Your task to perform on an android device: turn off priority inbox in the gmail app Image 0: 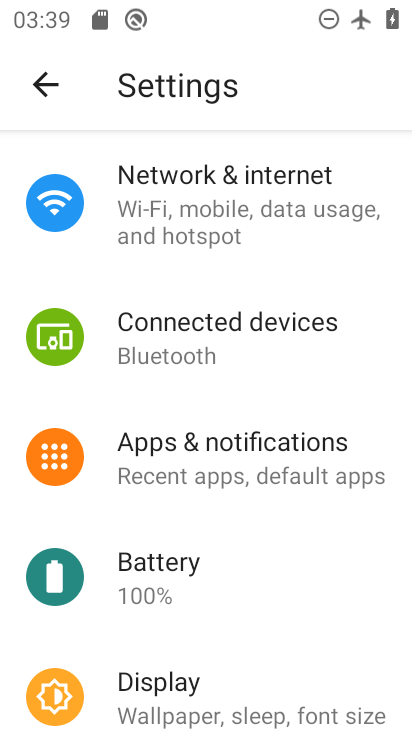
Step 0: press home button
Your task to perform on an android device: turn off priority inbox in the gmail app Image 1: 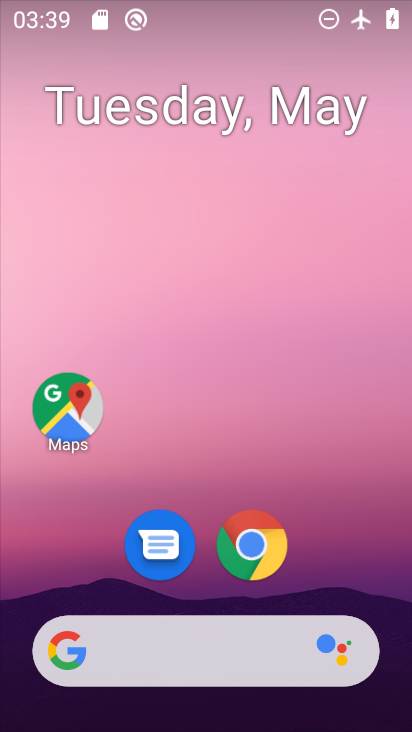
Step 1: drag from (394, 606) to (325, 171)
Your task to perform on an android device: turn off priority inbox in the gmail app Image 2: 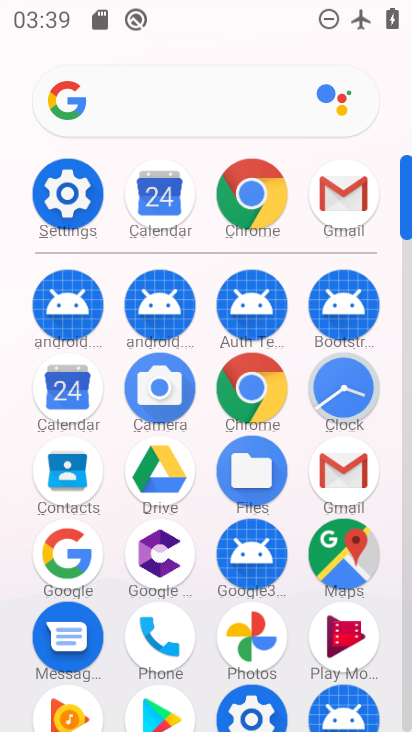
Step 2: click (342, 471)
Your task to perform on an android device: turn off priority inbox in the gmail app Image 3: 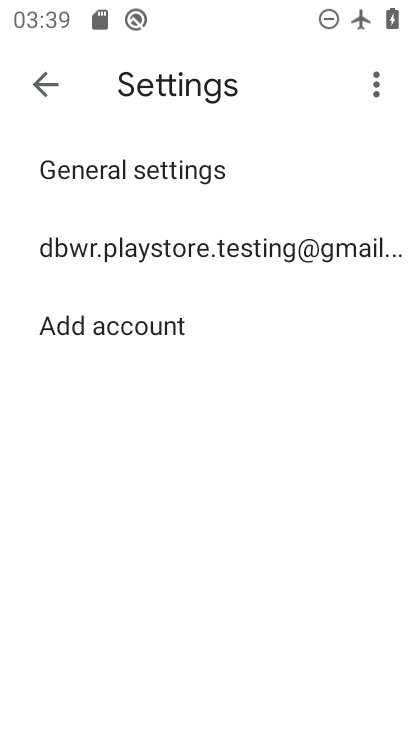
Step 3: click (146, 244)
Your task to perform on an android device: turn off priority inbox in the gmail app Image 4: 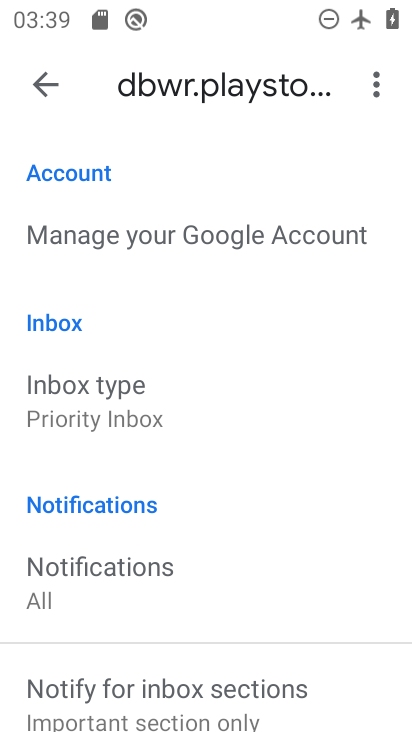
Step 4: click (91, 386)
Your task to perform on an android device: turn off priority inbox in the gmail app Image 5: 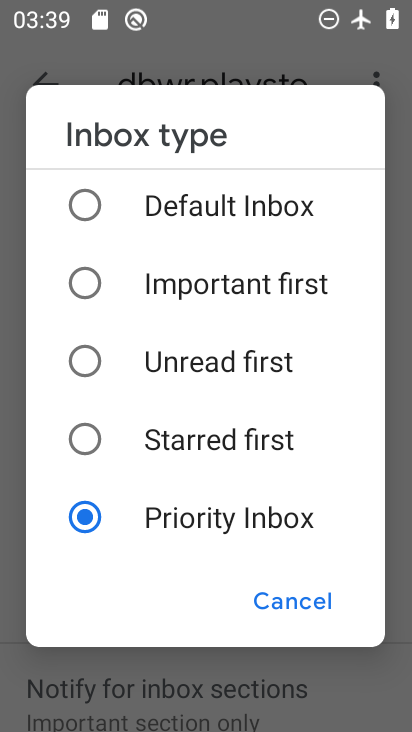
Step 5: click (84, 206)
Your task to perform on an android device: turn off priority inbox in the gmail app Image 6: 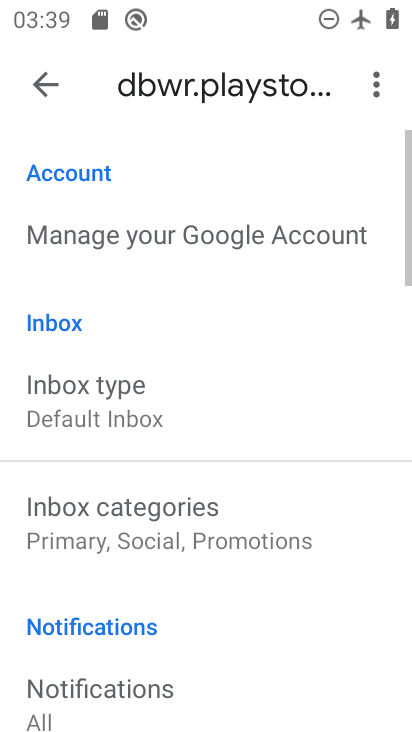
Step 6: task complete